Your task to perform on an android device: Search for Mexican restaurants on Maps Image 0: 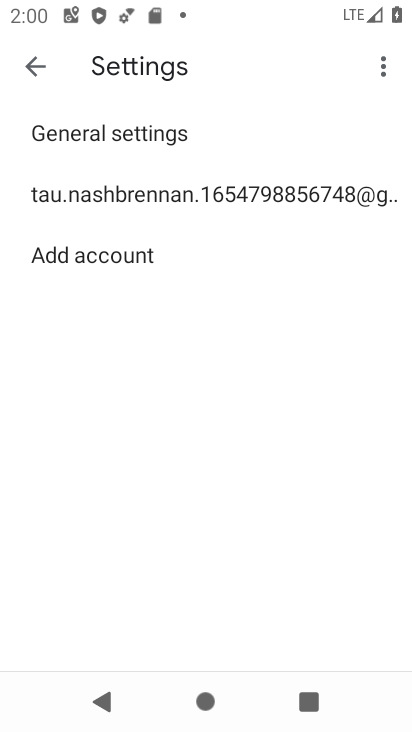
Step 0: press home button
Your task to perform on an android device: Search for Mexican restaurants on Maps Image 1: 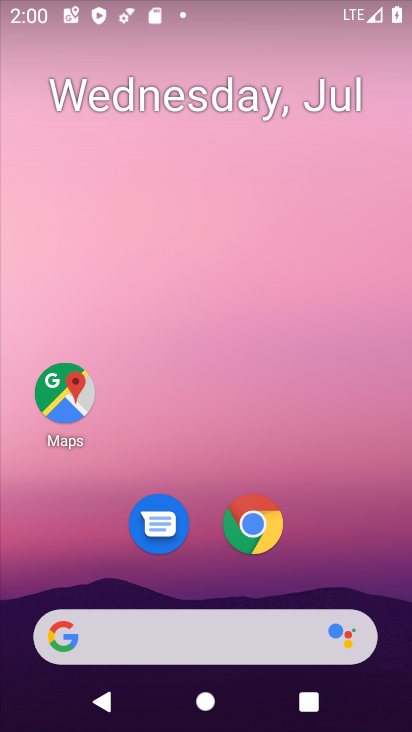
Step 1: click (53, 385)
Your task to perform on an android device: Search for Mexican restaurants on Maps Image 2: 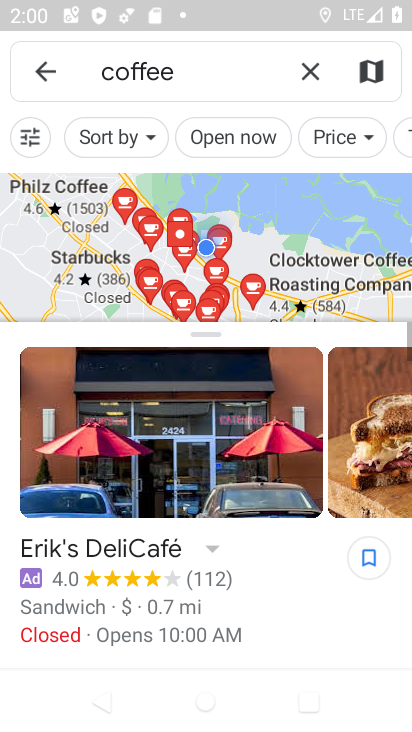
Step 2: click (307, 58)
Your task to perform on an android device: Search for Mexican restaurants on Maps Image 3: 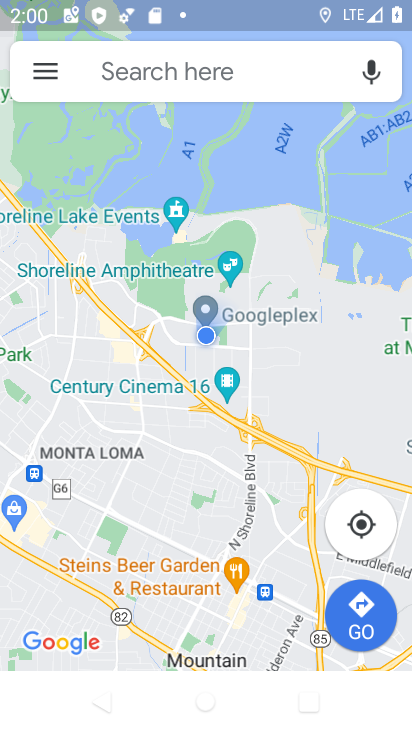
Step 3: click (267, 76)
Your task to perform on an android device: Search for Mexican restaurants on Maps Image 4: 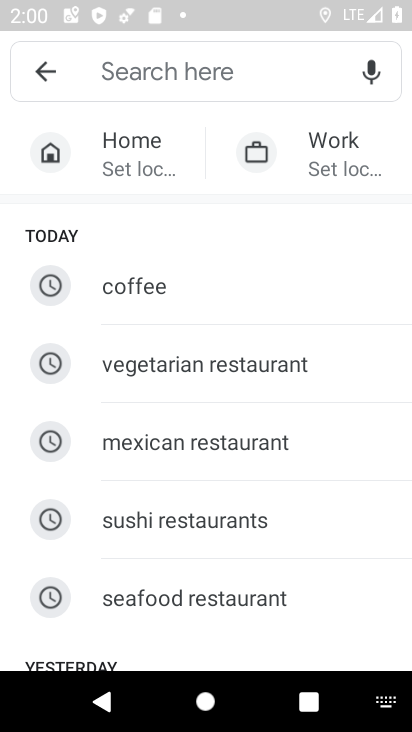
Step 4: click (242, 445)
Your task to perform on an android device: Search for Mexican restaurants on Maps Image 5: 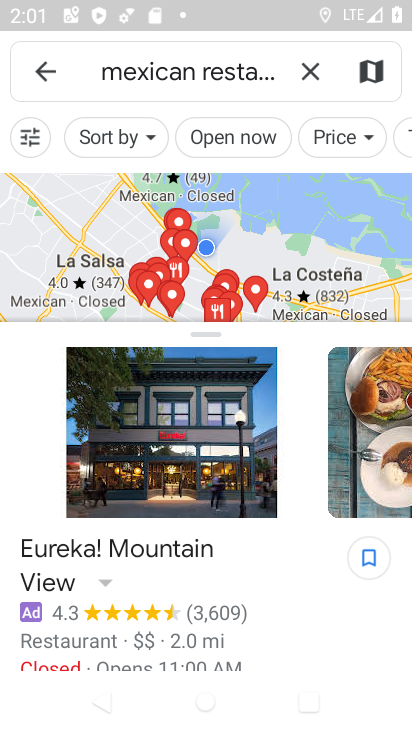
Step 5: task complete